Your task to perform on an android device: turn on notifications settings in the gmail app Image 0: 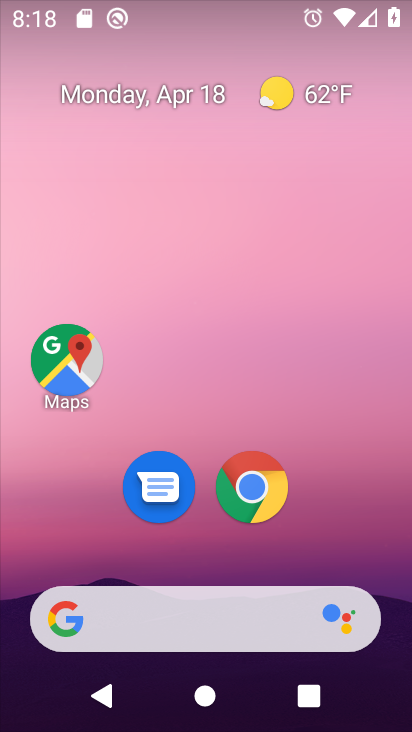
Step 0: press home button
Your task to perform on an android device: turn on notifications settings in the gmail app Image 1: 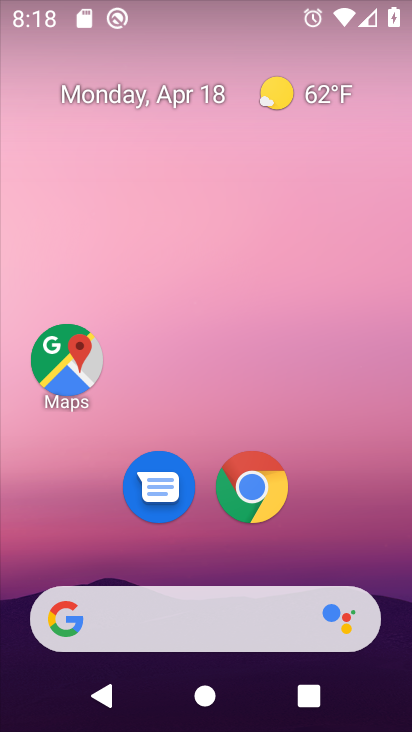
Step 1: drag from (206, 559) to (190, 64)
Your task to perform on an android device: turn on notifications settings in the gmail app Image 2: 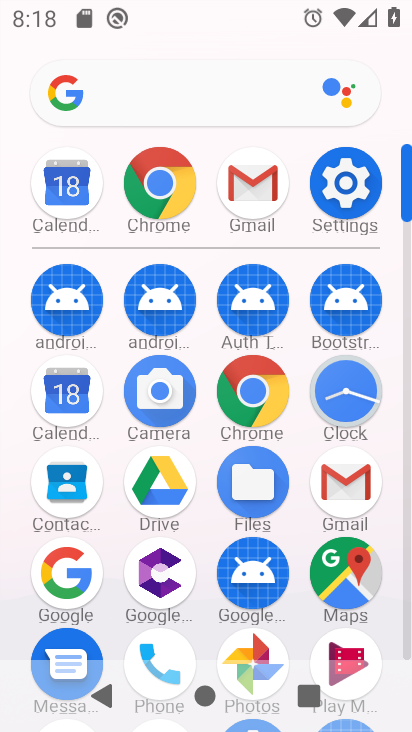
Step 2: click (341, 474)
Your task to perform on an android device: turn on notifications settings in the gmail app Image 3: 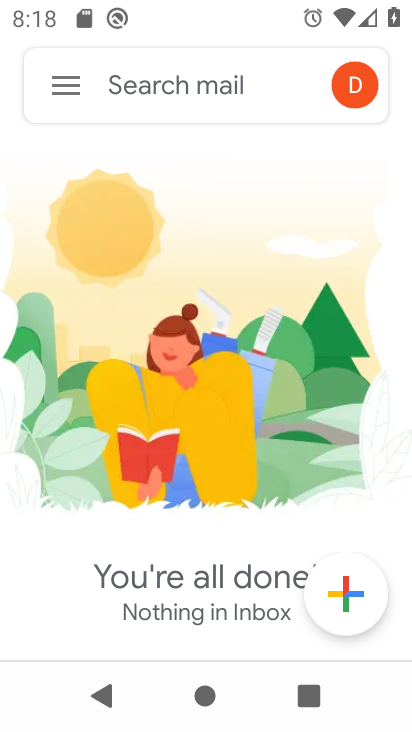
Step 3: click (58, 79)
Your task to perform on an android device: turn on notifications settings in the gmail app Image 4: 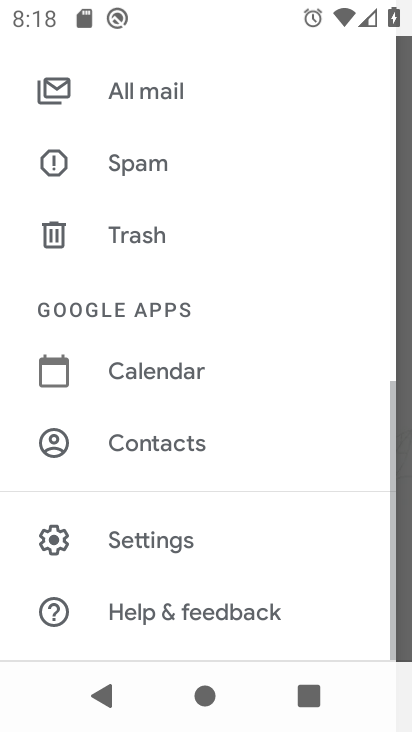
Step 4: click (165, 542)
Your task to perform on an android device: turn on notifications settings in the gmail app Image 5: 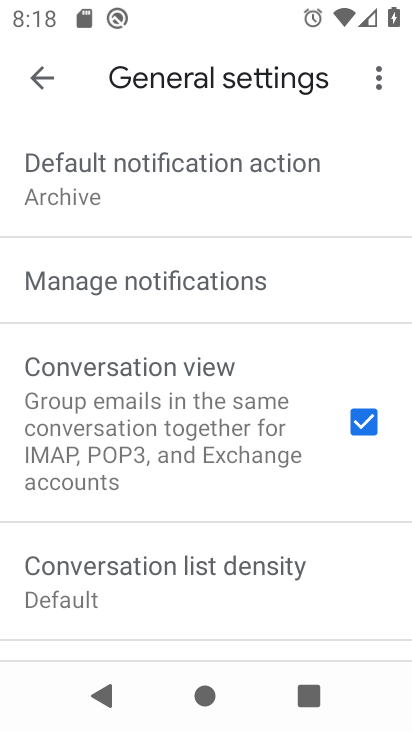
Step 5: click (161, 303)
Your task to perform on an android device: turn on notifications settings in the gmail app Image 6: 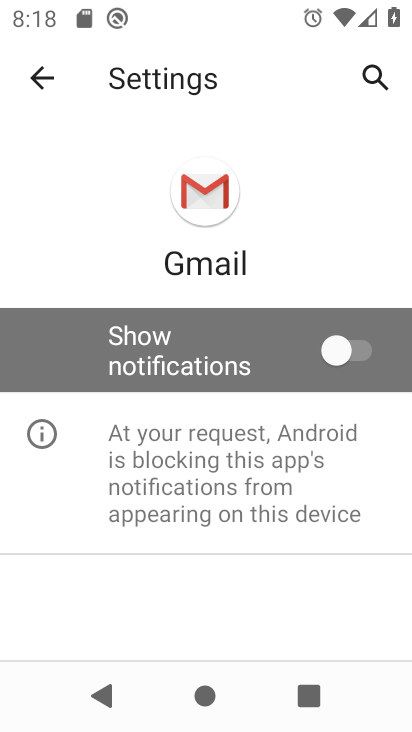
Step 6: click (353, 348)
Your task to perform on an android device: turn on notifications settings in the gmail app Image 7: 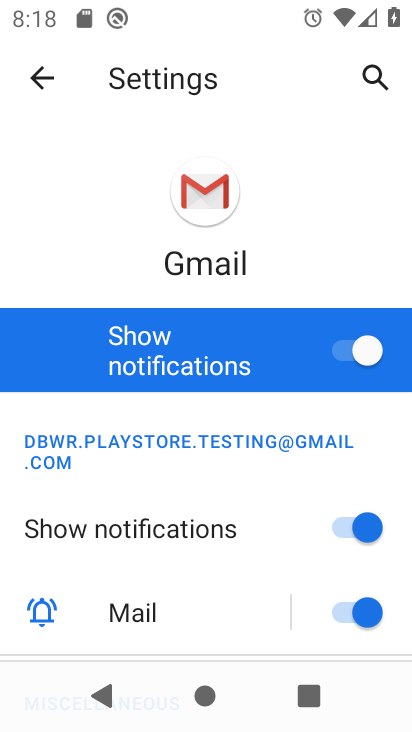
Step 7: task complete